Your task to perform on an android device: open app "DoorDash - Food Delivery" (install if not already installed), go to login, and select forgot password Image 0: 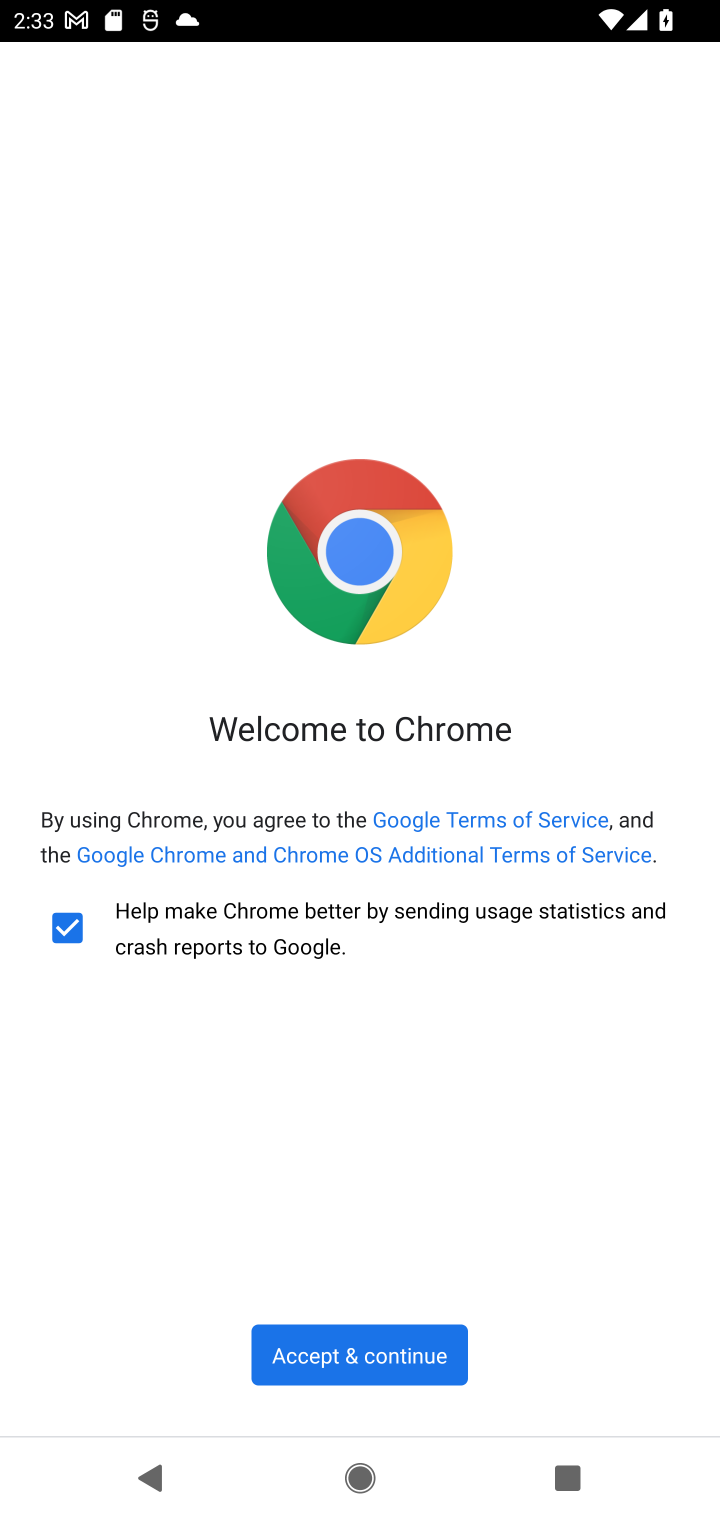
Step 0: press home button
Your task to perform on an android device: open app "DoorDash - Food Delivery" (install if not already installed), go to login, and select forgot password Image 1: 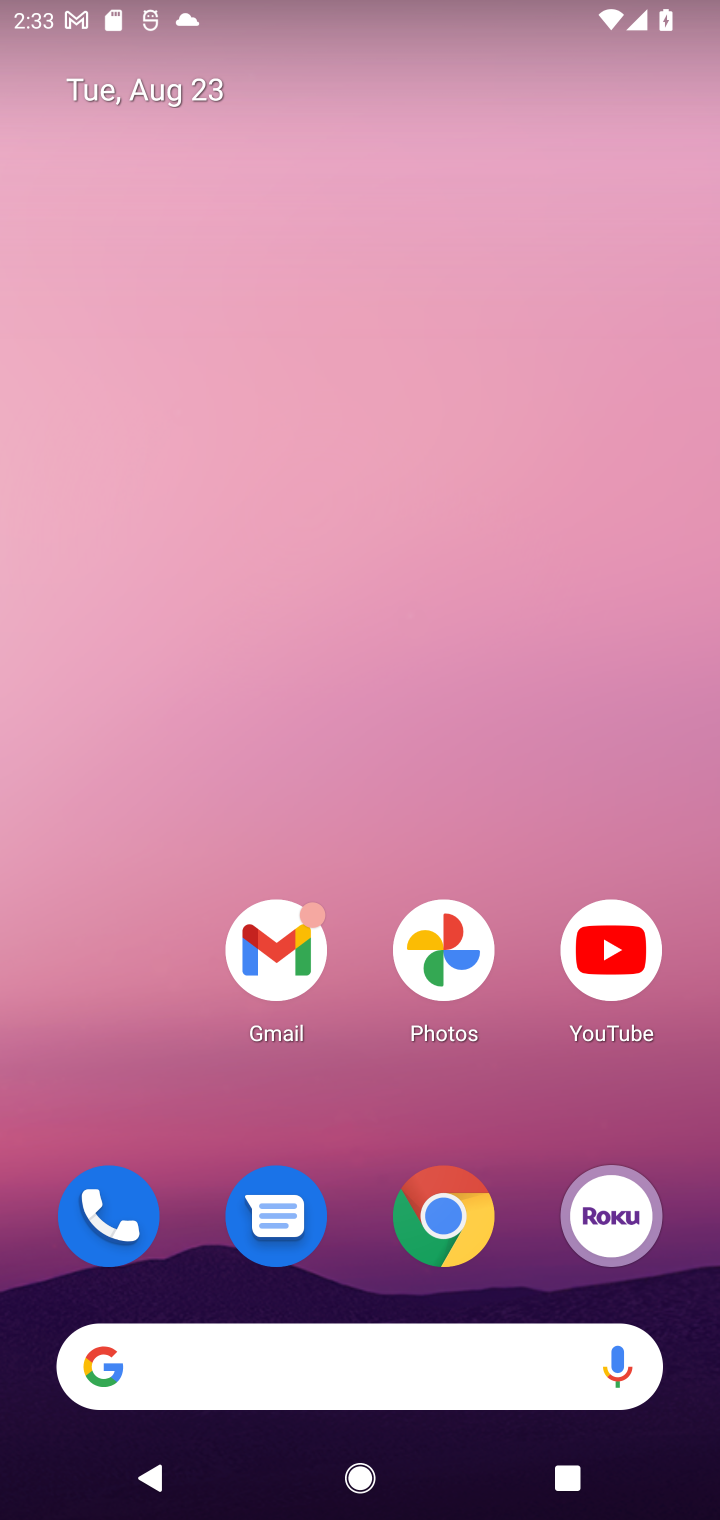
Step 1: drag from (421, 1044) to (500, 408)
Your task to perform on an android device: open app "DoorDash - Food Delivery" (install if not already installed), go to login, and select forgot password Image 2: 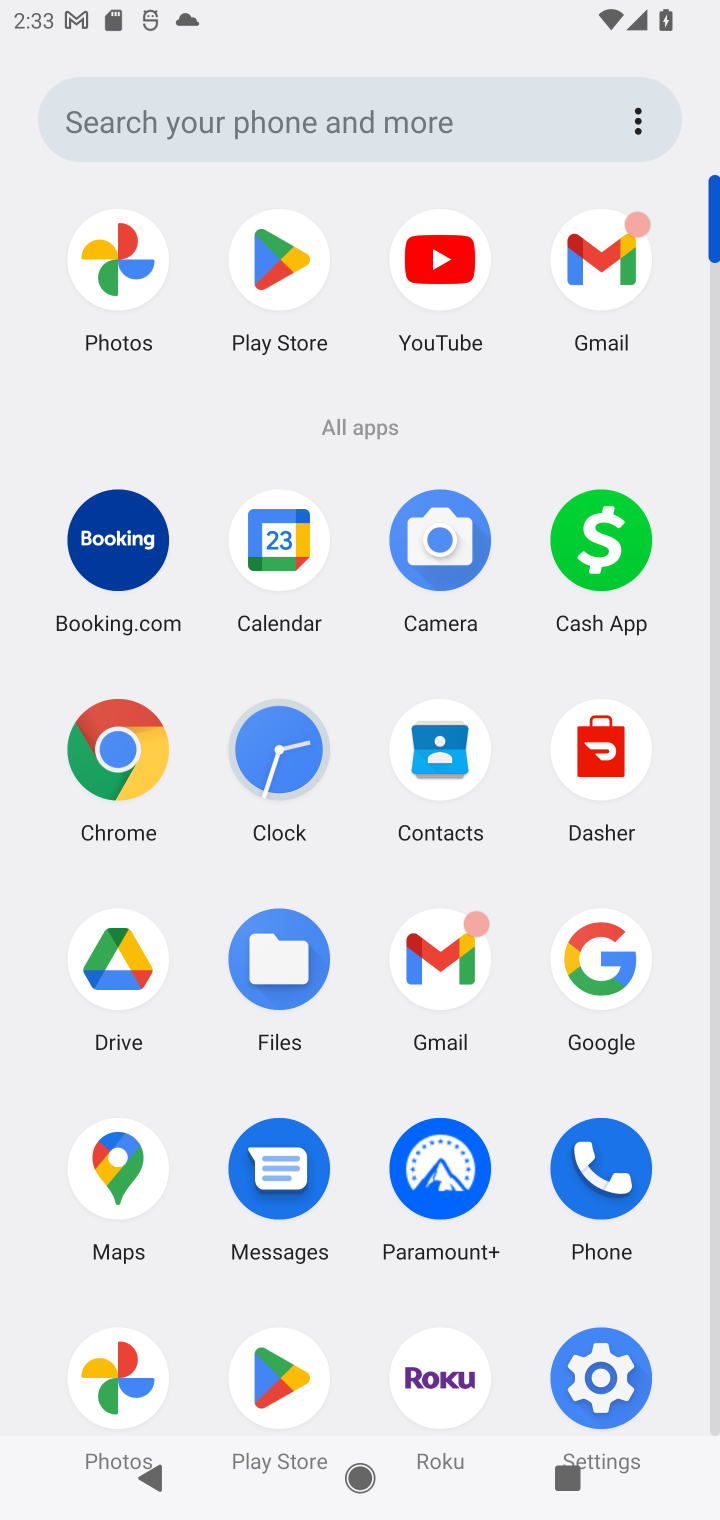
Step 2: click (289, 241)
Your task to perform on an android device: open app "DoorDash - Food Delivery" (install if not already installed), go to login, and select forgot password Image 3: 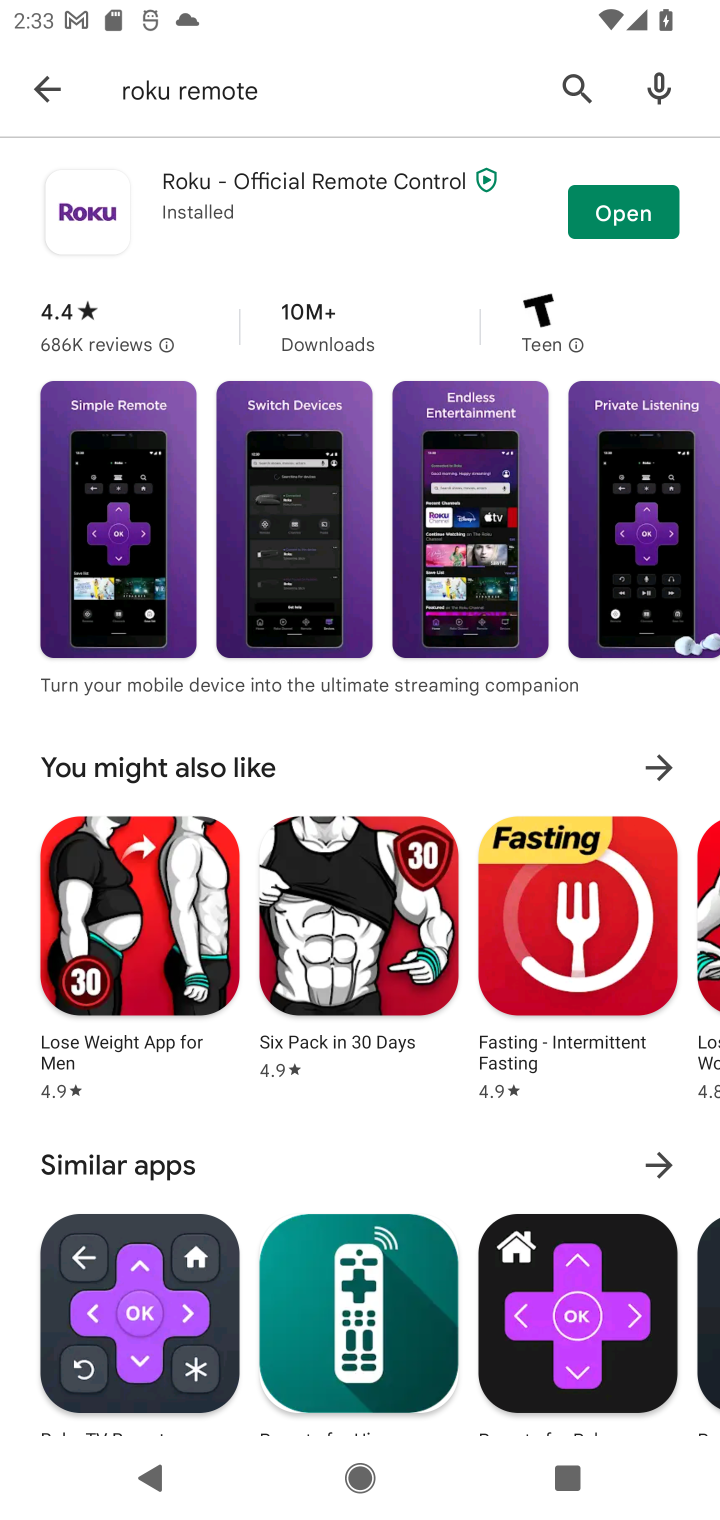
Step 3: click (66, 68)
Your task to perform on an android device: open app "DoorDash - Food Delivery" (install if not already installed), go to login, and select forgot password Image 4: 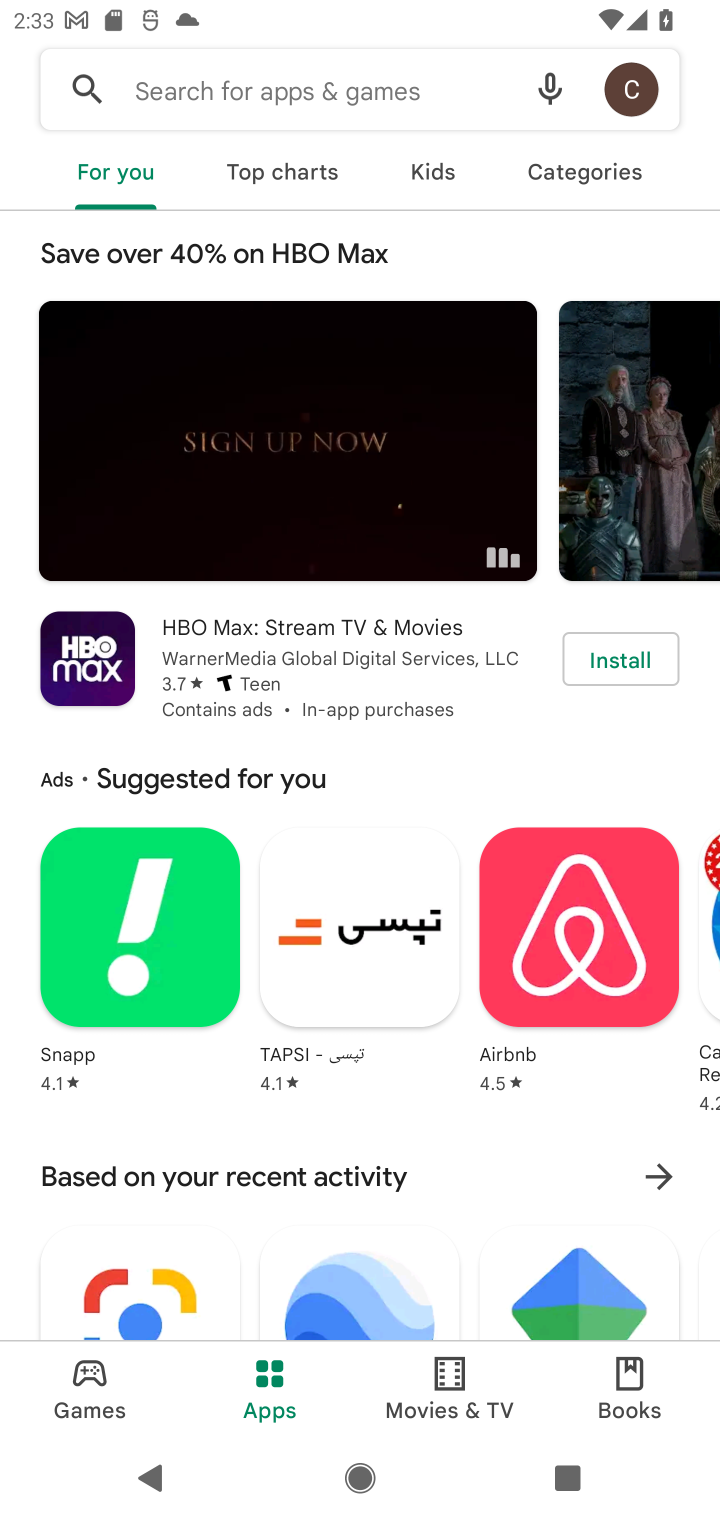
Step 4: click (185, 83)
Your task to perform on an android device: open app "DoorDash - Food Delivery" (install if not already installed), go to login, and select forgot password Image 5: 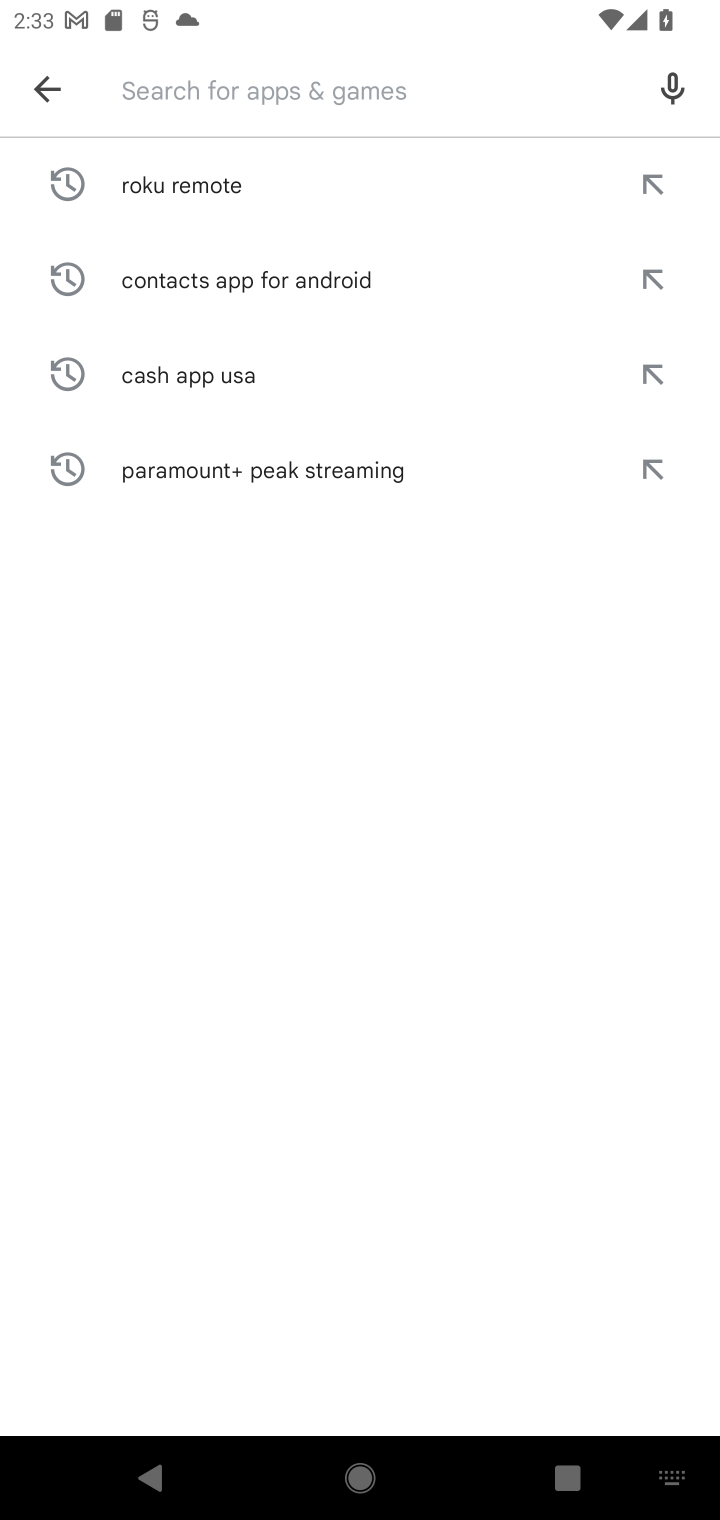
Step 5: type "DoorDash "
Your task to perform on an android device: open app "DoorDash - Food Delivery" (install if not already installed), go to login, and select forgot password Image 6: 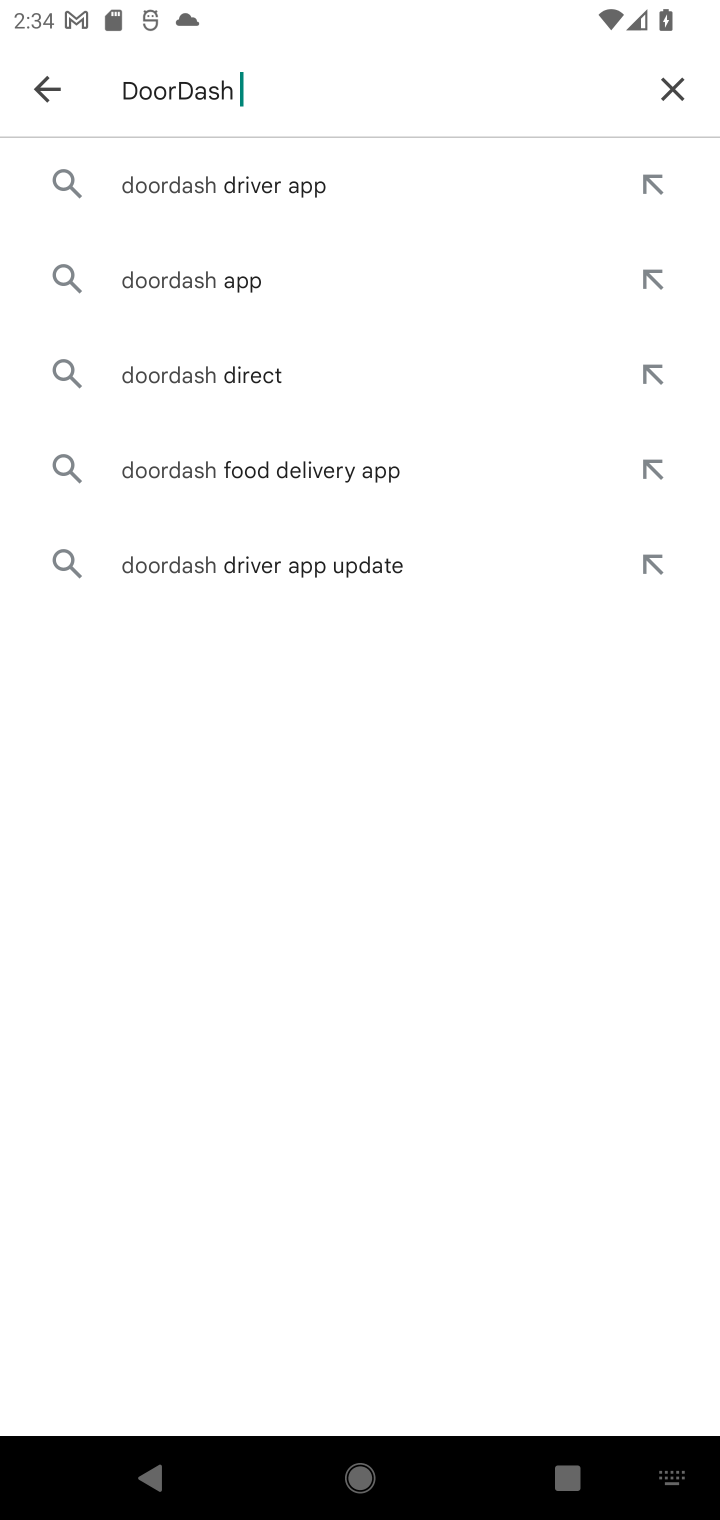
Step 6: click (326, 478)
Your task to perform on an android device: open app "DoorDash - Food Delivery" (install if not already installed), go to login, and select forgot password Image 7: 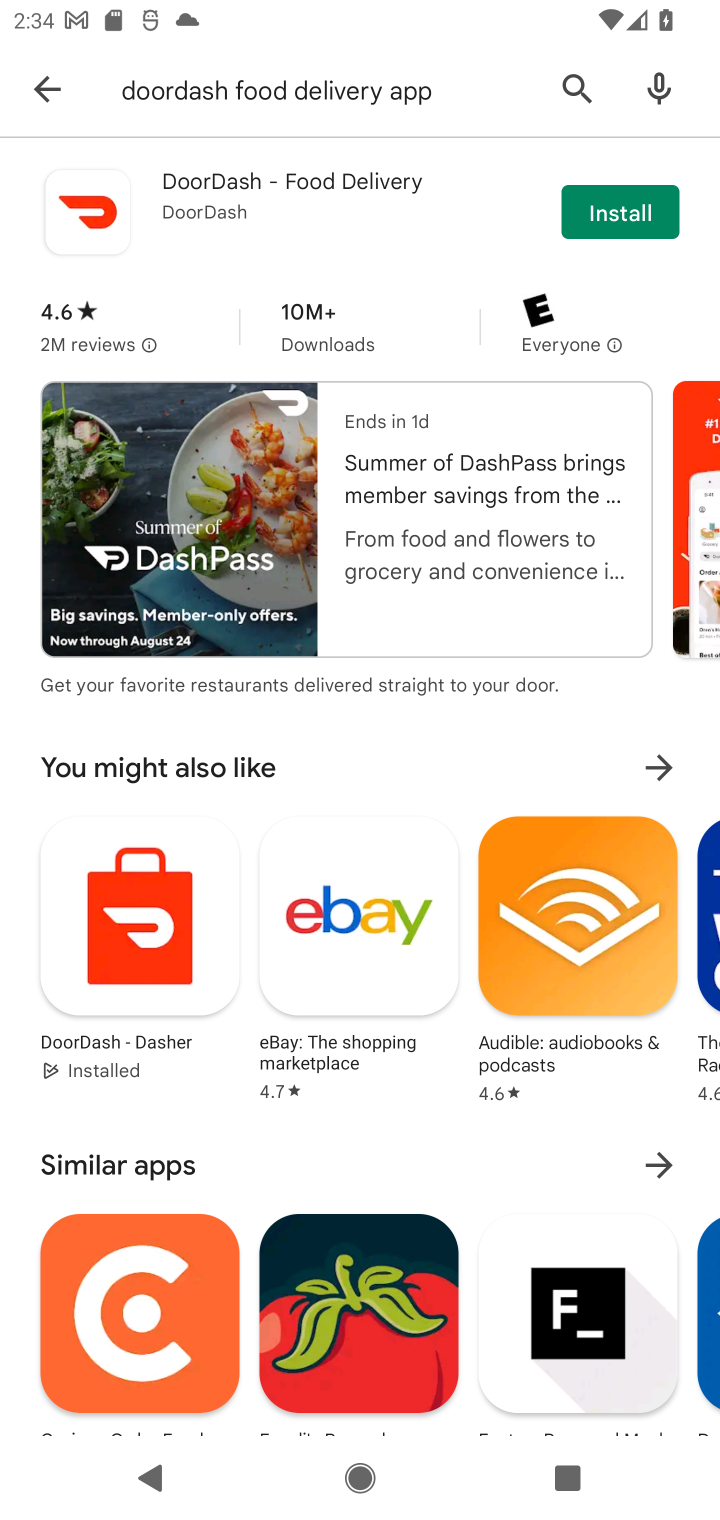
Step 7: click (587, 220)
Your task to perform on an android device: open app "DoorDash - Food Delivery" (install if not already installed), go to login, and select forgot password Image 8: 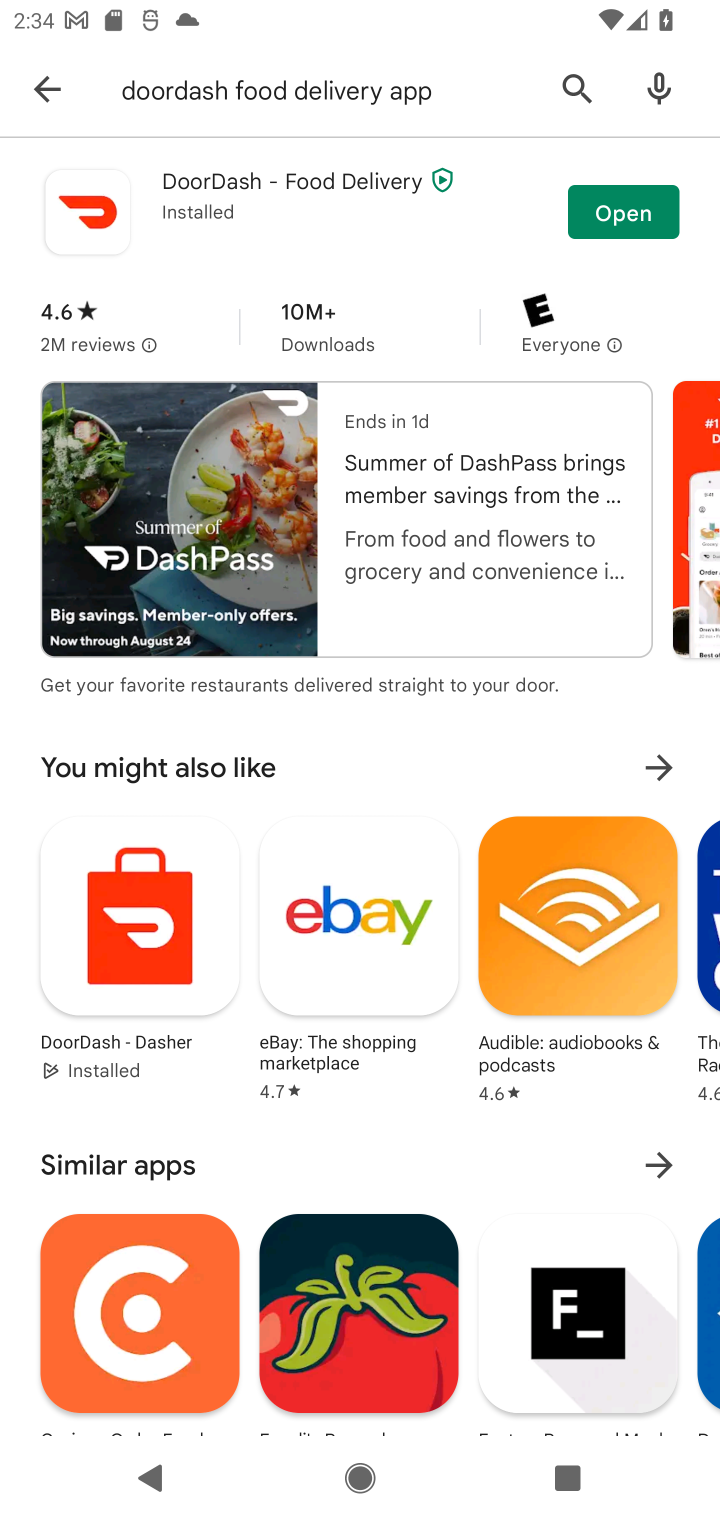
Step 8: click (640, 198)
Your task to perform on an android device: open app "DoorDash - Food Delivery" (install if not already installed), go to login, and select forgot password Image 9: 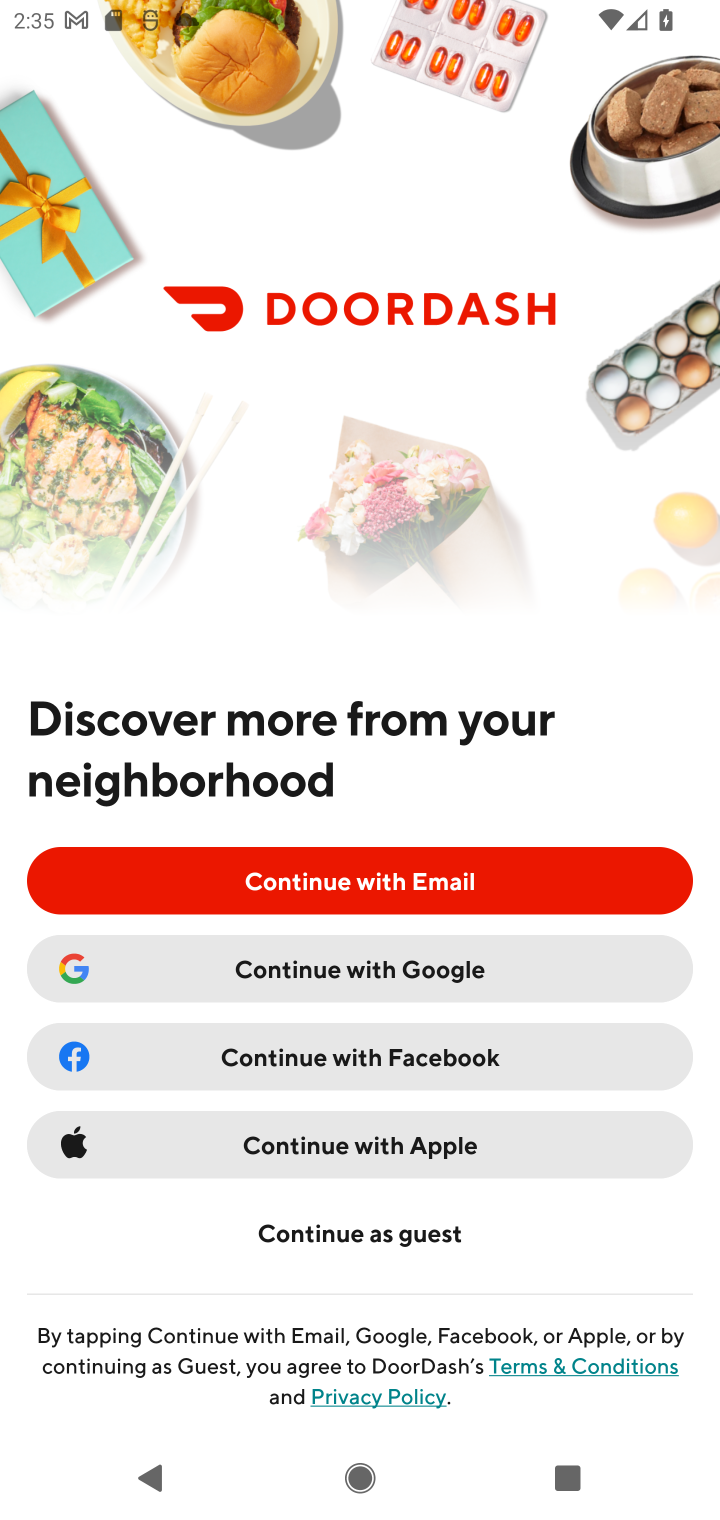
Step 9: task complete